Your task to perform on an android device: toggle notification dots Image 0: 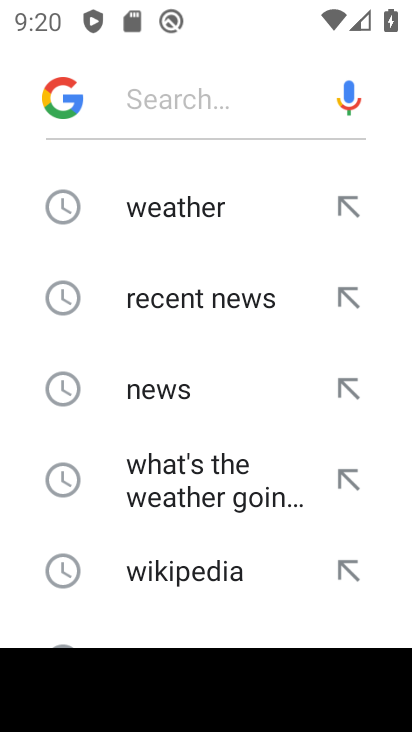
Step 0: press home button
Your task to perform on an android device: toggle notification dots Image 1: 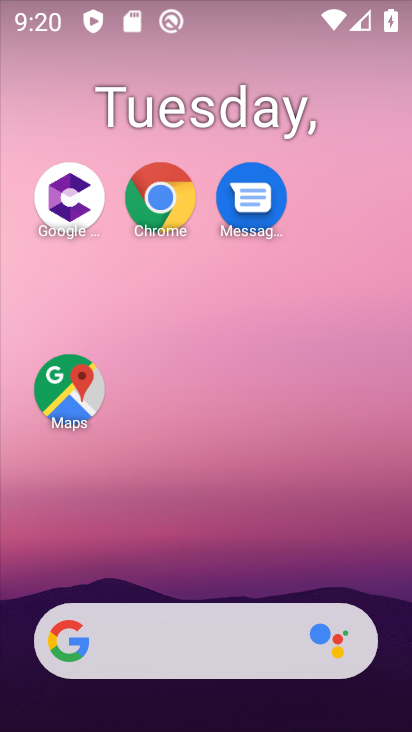
Step 1: drag from (212, 575) to (161, 71)
Your task to perform on an android device: toggle notification dots Image 2: 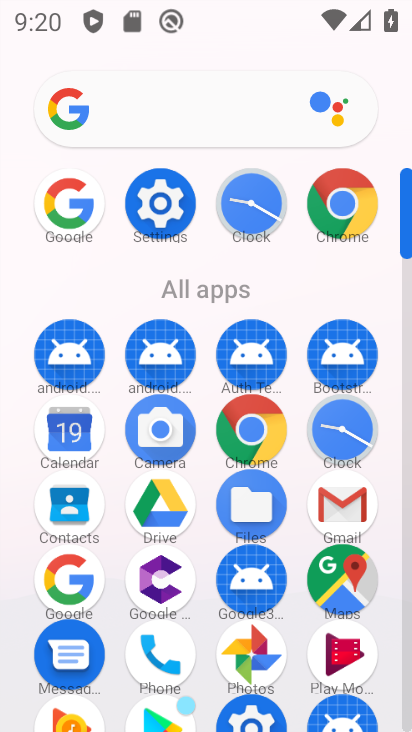
Step 2: click (170, 217)
Your task to perform on an android device: toggle notification dots Image 3: 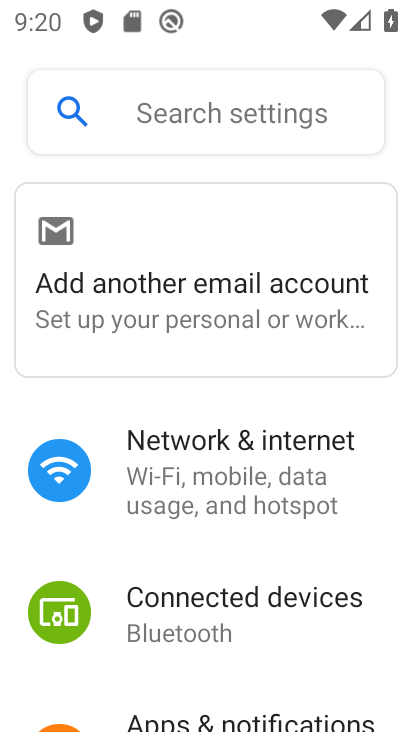
Step 3: drag from (258, 658) to (192, 318)
Your task to perform on an android device: toggle notification dots Image 4: 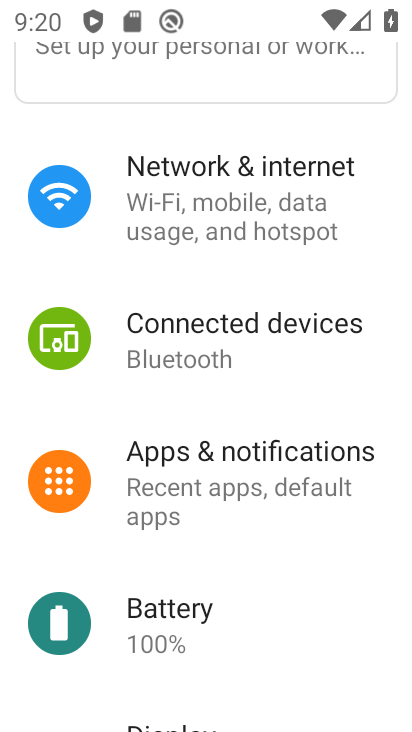
Step 4: click (228, 472)
Your task to perform on an android device: toggle notification dots Image 5: 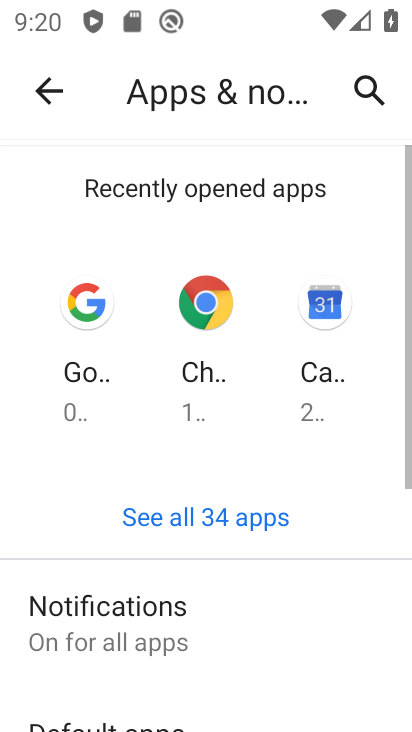
Step 5: click (176, 604)
Your task to perform on an android device: toggle notification dots Image 6: 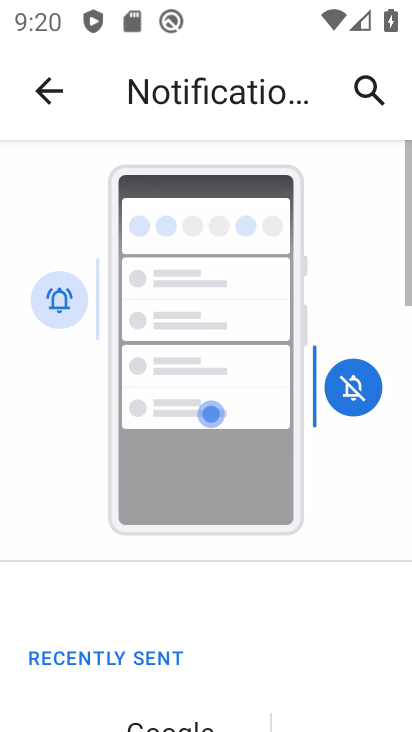
Step 6: drag from (190, 622) to (127, 68)
Your task to perform on an android device: toggle notification dots Image 7: 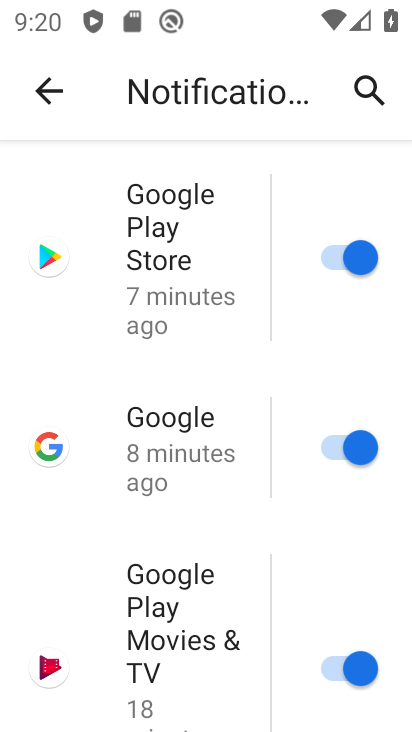
Step 7: drag from (178, 589) to (181, 31)
Your task to perform on an android device: toggle notification dots Image 8: 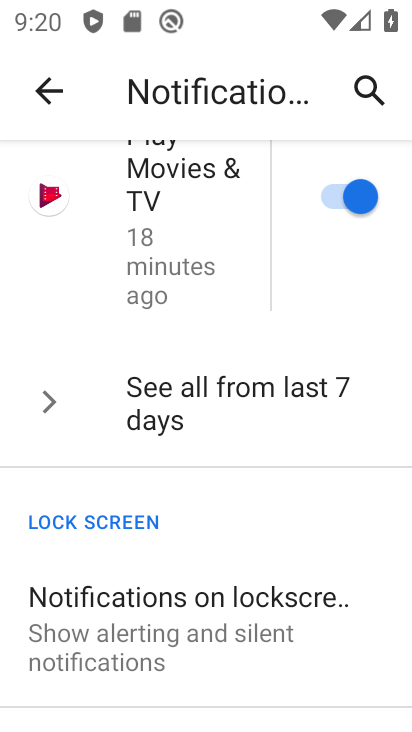
Step 8: drag from (191, 643) to (176, 86)
Your task to perform on an android device: toggle notification dots Image 9: 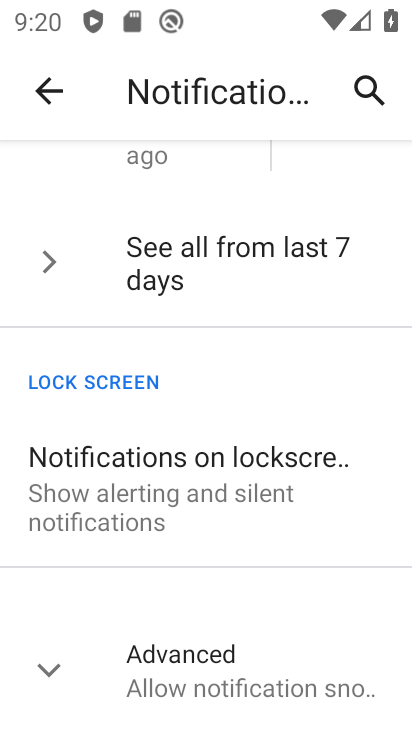
Step 9: click (209, 668)
Your task to perform on an android device: toggle notification dots Image 10: 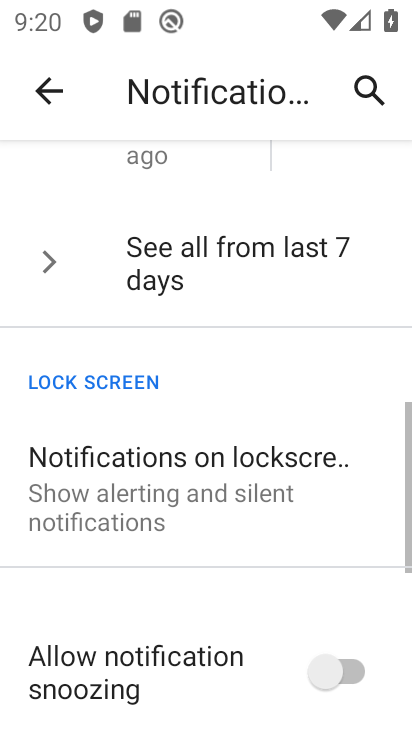
Step 10: drag from (209, 668) to (156, 189)
Your task to perform on an android device: toggle notification dots Image 11: 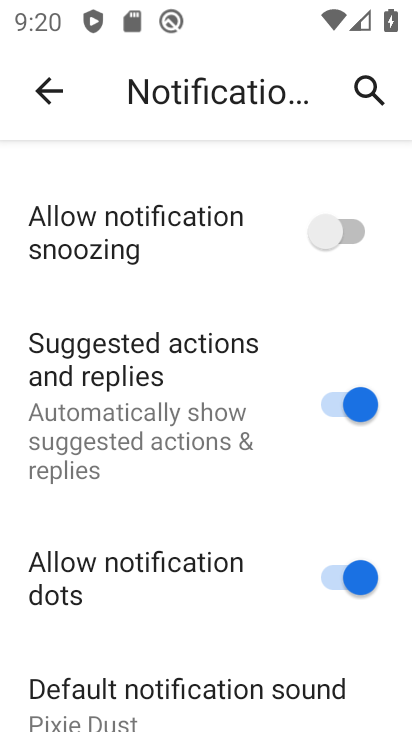
Step 11: click (334, 580)
Your task to perform on an android device: toggle notification dots Image 12: 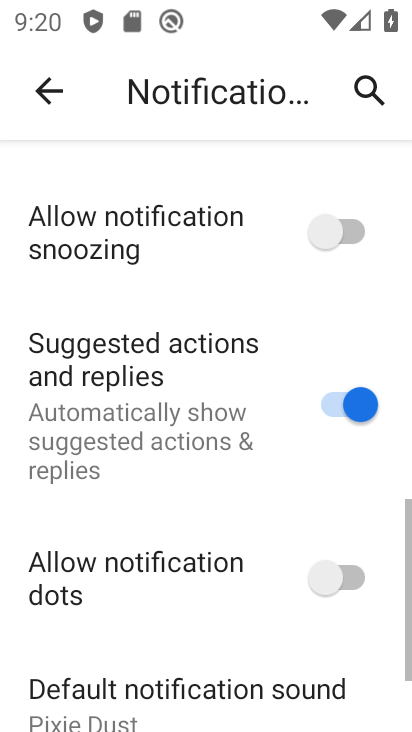
Step 12: task complete